Your task to perform on an android device: Search for Italian restaurants on Maps Image 0: 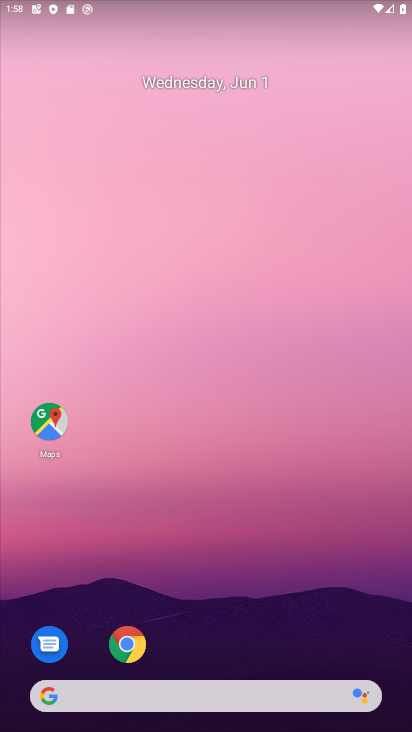
Step 0: click (42, 422)
Your task to perform on an android device: Search for Italian restaurants on Maps Image 1: 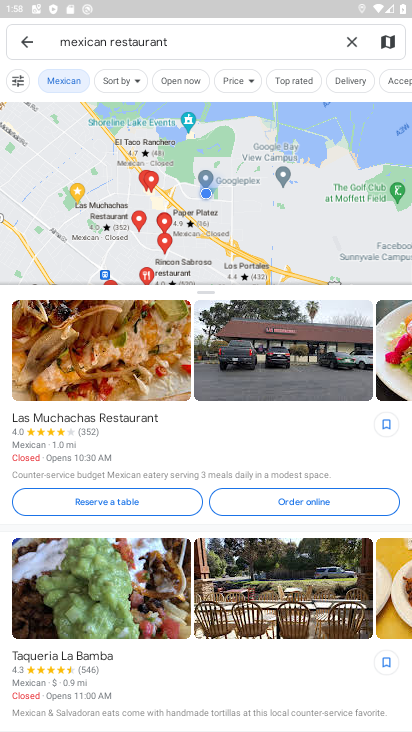
Step 1: drag from (43, 398) to (215, 731)
Your task to perform on an android device: Search for Italian restaurants on Maps Image 2: 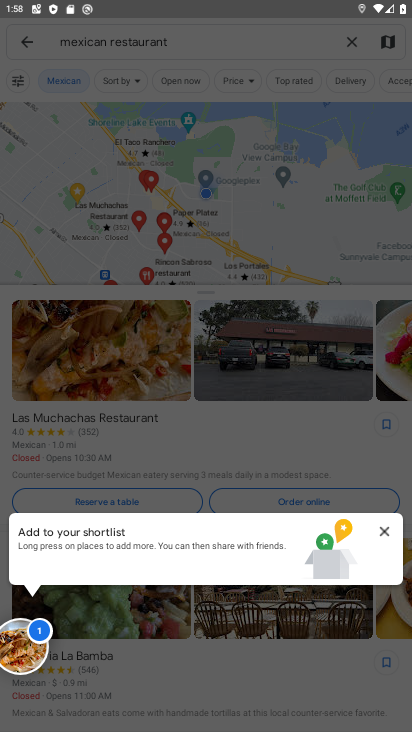
Step 2: click (388, 531)
Your task to perform on an android device: Search for Italian restaurants on Maps Image 3: 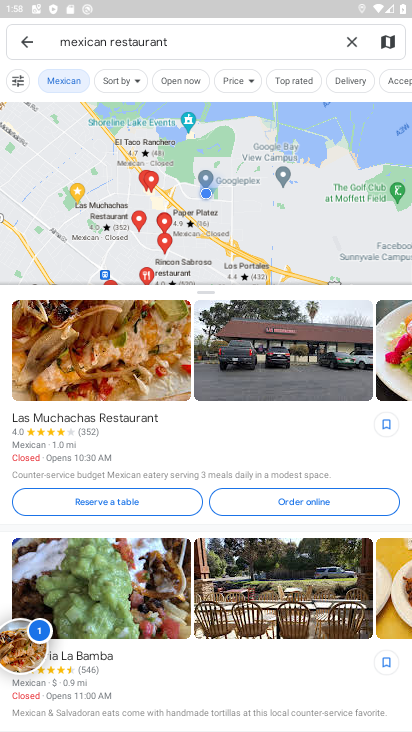
Step 3: click (352, 42)
Your task to perform on an android device: Search for Italian restaurants on Maps Image 4: 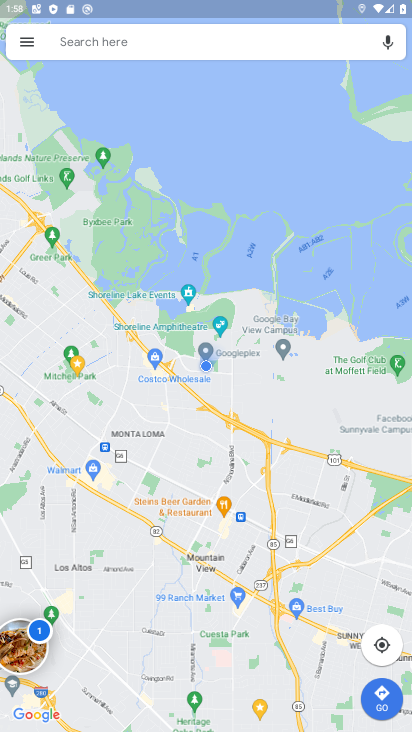
Step 4: click (82, 29)
Your task to perform on an android device: Search for Italian restaurants on Maps Image 5: 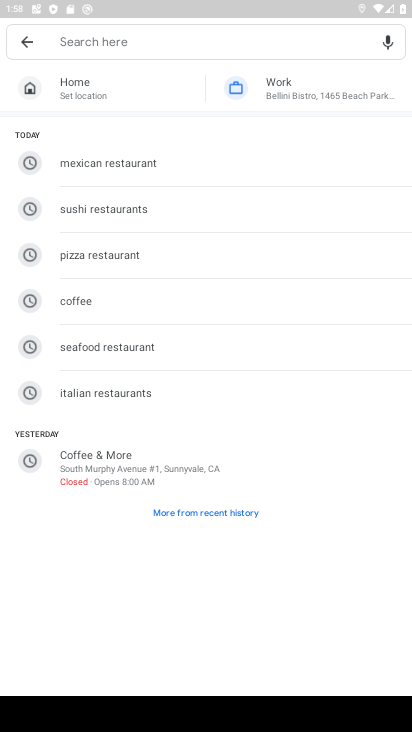
Step 5: type "Italian restaurants "
Your task to perform on an android device: Search for Italian restaurants on Maps Image 6: 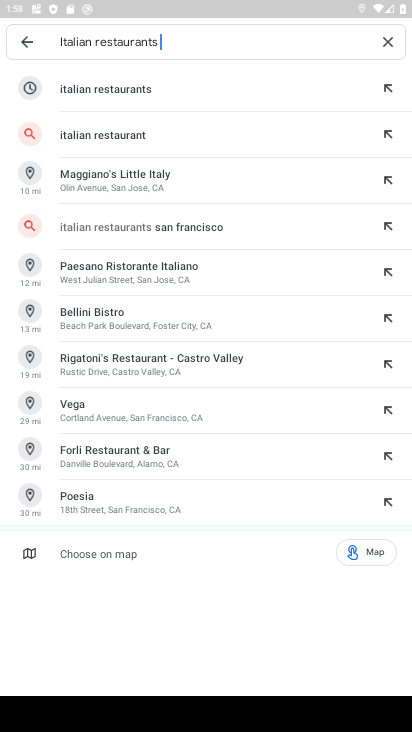
Step 6: click (96, 91)
Your task to perform on an android device: Search for Italian restaurants on Maps Image 7: 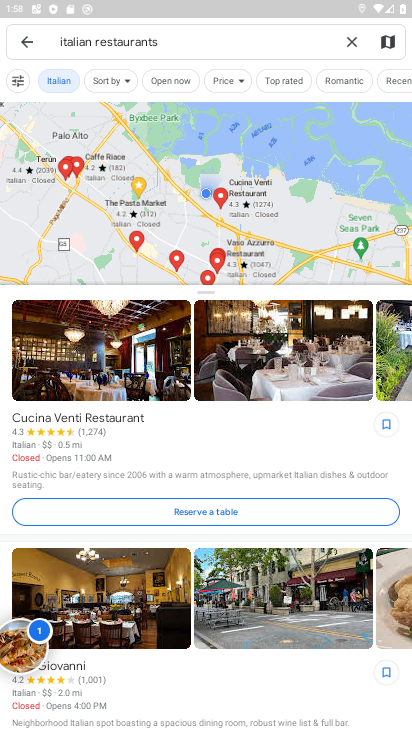
Step 7: task complete